Your task to perform on an android device: open app "AliExpress" (install if not already installed) Image 0: 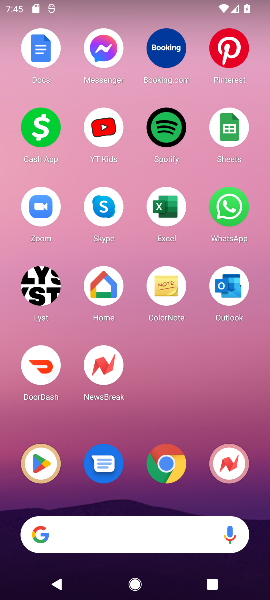
Step 0: click (33, 465)
Your task to perform on an android device: open app "AliExpress" (install if not already installed) Image 1: 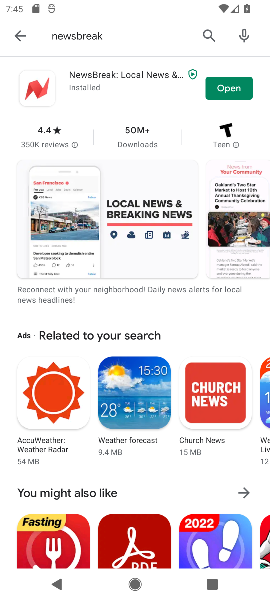
Step 1: click (207, 41)
Your task to perform on an android device: open app "AliExpress" (install if not already installed) Image 2: 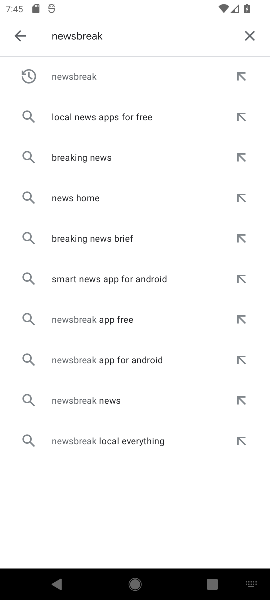
Step 2: click (244, 35)
Your task to perform on an android device: open app "AliExpress" (install if not already installed) Image 3: 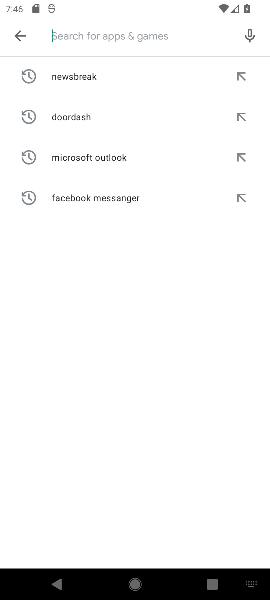
Step 3: type "aliexpress"
Your task to perform on an android device: open app "AliExpress" (install if not already installed) Image 4: 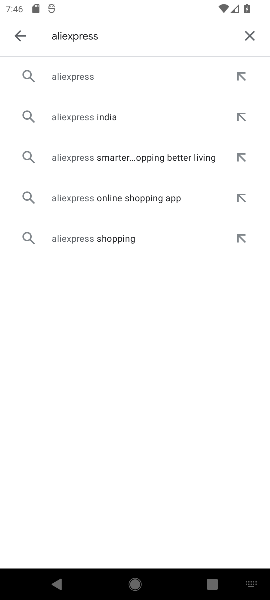
Step 4: click (117, 77)
Your task to perform on an android device: open app "AliExpress" (install if not already installed) Image 5: 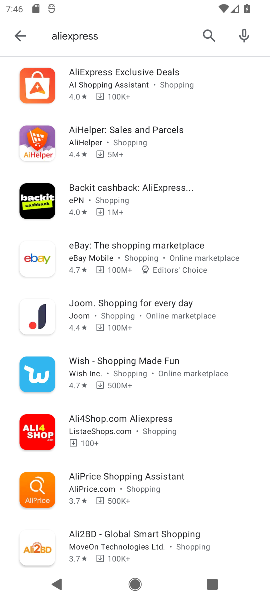
Step 5: click (160, 73)
Your task to perform on an android device: open app "AliExpress" (install if not already installed) Image 6: 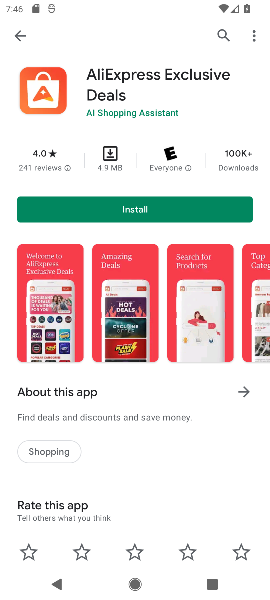
Step 6: click (96, 215)
Your task to perform on an android device: open app "AliExpress" (install if not already installed) Image 7: 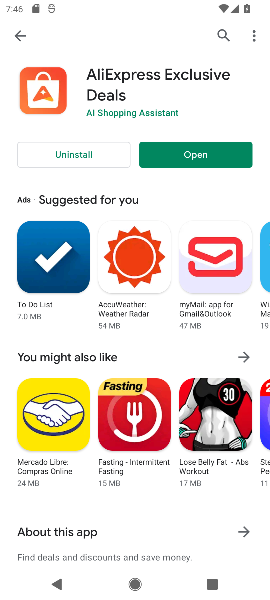
Step 7: task complete